Your task to perform on an android device: toggle notification dots Image 0: 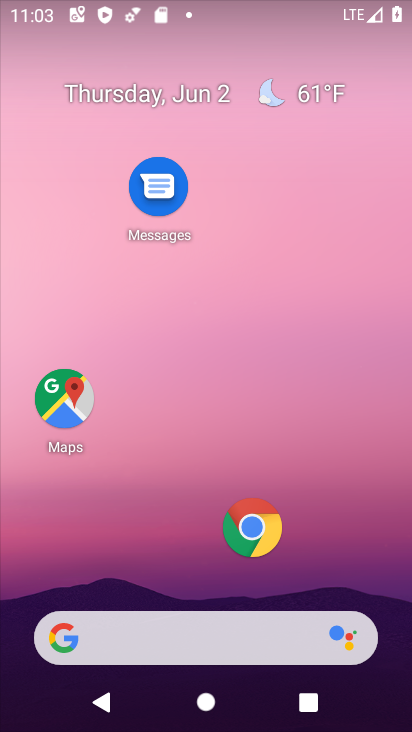
Step 0: press home button
Your task to perform on an android device: toggle notification dots Image 1: 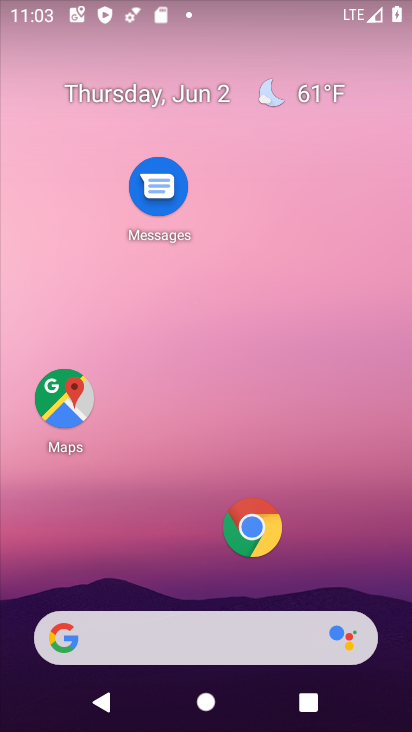
Step 1: drag from (204, 590) to (237, 36)
Your task to perform on an android device: toggle notification dots Image 2: 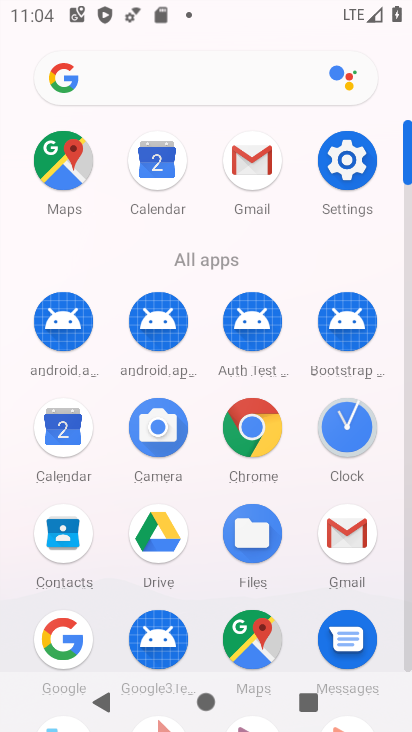
Step 2: click (345, 154)
Your task to perform on an android device: toggle notification dots Image 3: 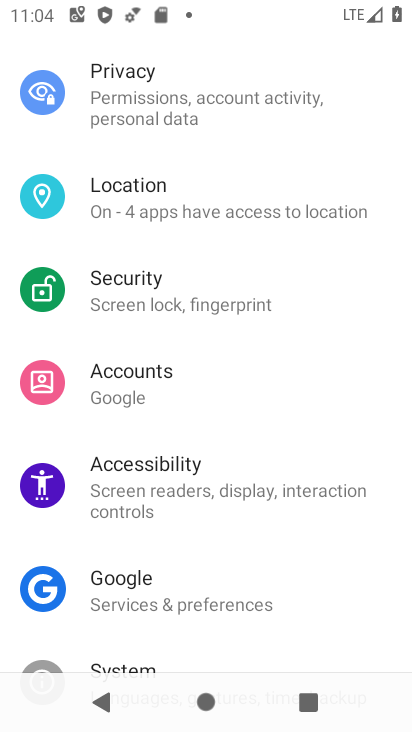
Step 3: drag from (218, 112) to (239, 601)
Your task to perform on an android device: toggle notification dots Image 4: 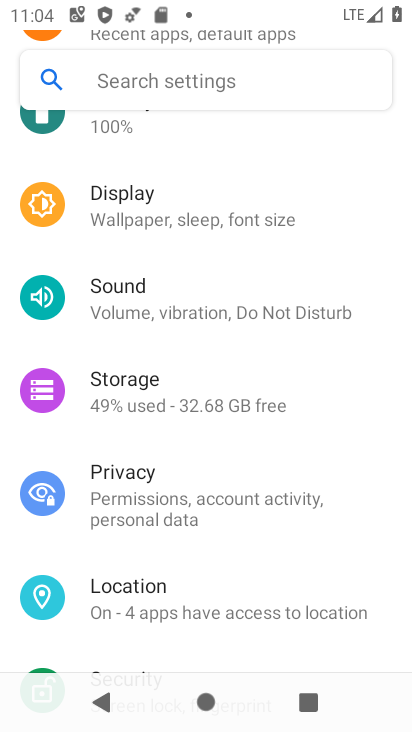
Step 4: drag from (211, 191) to (189, 664)
Your task to perform on an android device: toggle notification dots Image 5: 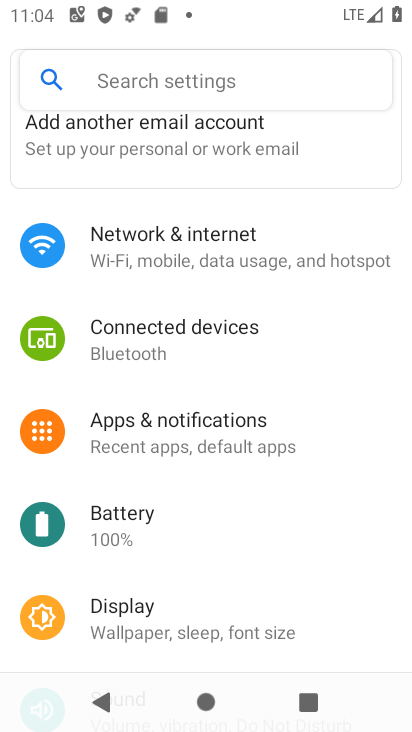
Step 5: click (287, 421)
Your task to perform on an android device: toggle notification dots Image 6: 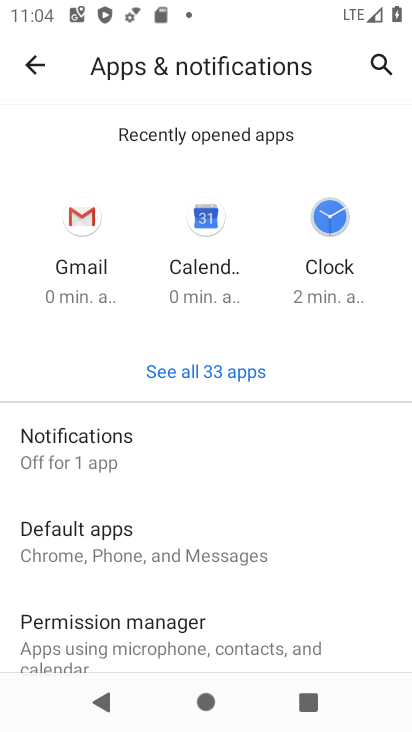
Step 6: click (164, 451)
Your task to perform on an android device: toggle notification dots Image 7: 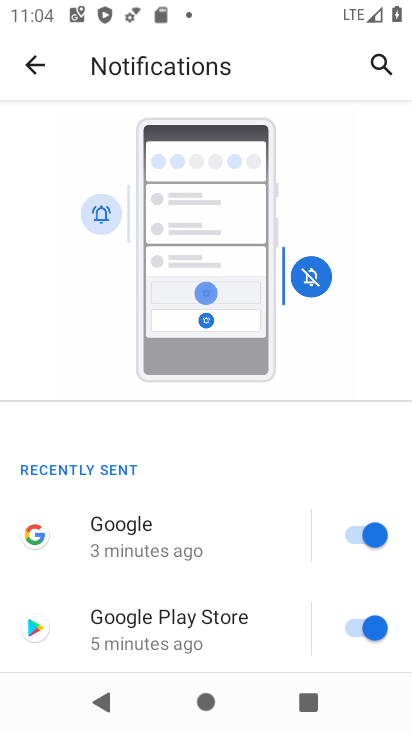
Step 7: drag from (248, 651) to (240, 144)
Your task to perform on an android device: toggle notification dots Image 8: 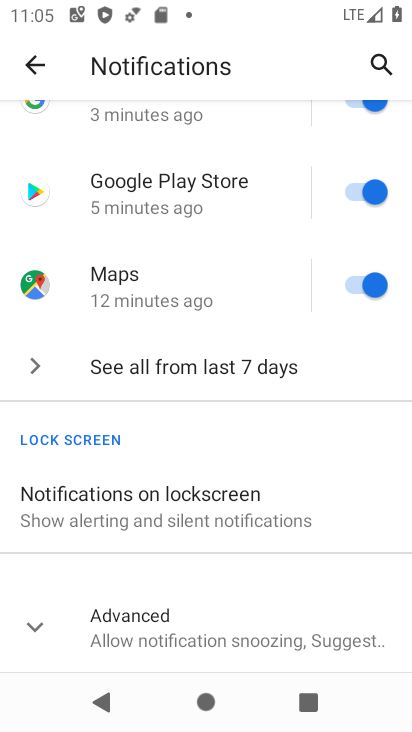
Step 8: click (37, 622)
Your task to perform on an android device: toggle notification dots Image 9: 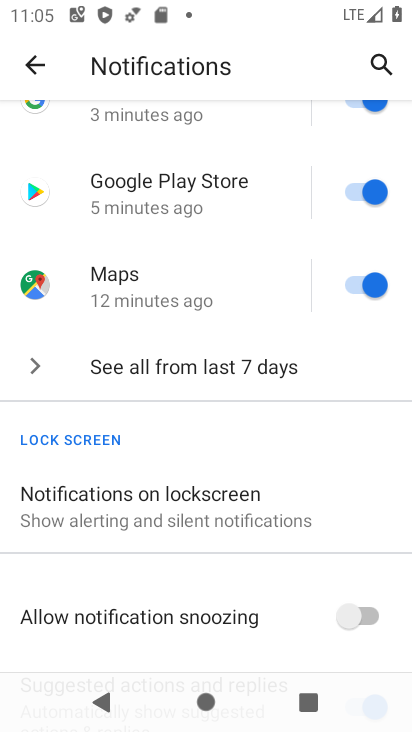
Step 9: drag from (274, 646) to (265, 126)
Your task to perform on an android device: toggle notification dots Image 10: 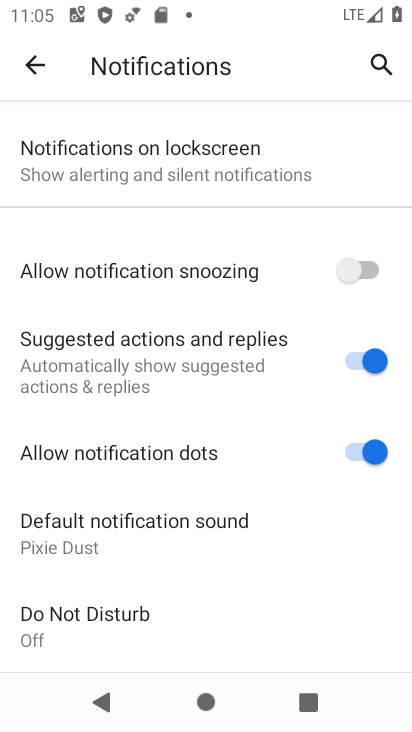
Step 10: click (361, 450)
Your task to perform on an android device: toggle notification dots Image 11: 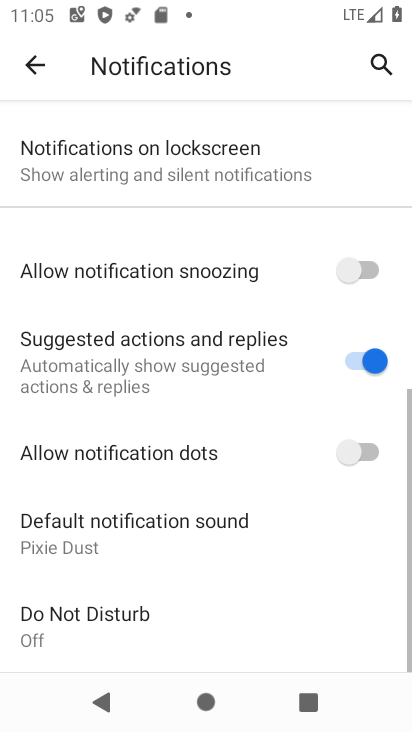
Step 11: task complete